Your task to perform on an android device: Open Chrome and go to settings Image 0: 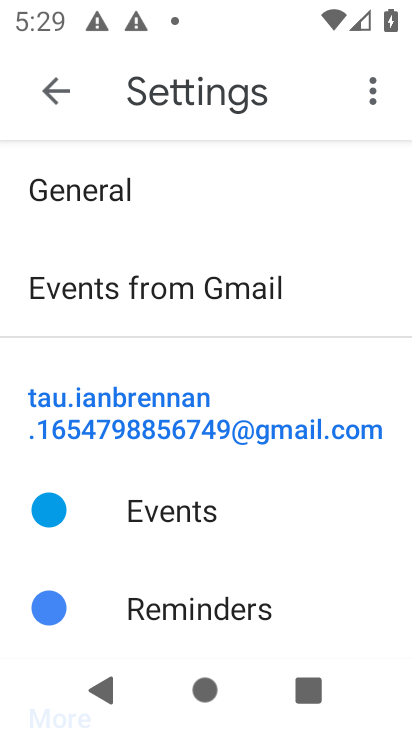
Step 0: press home button
Your task to perform on an android device: Open Chrome and go to settings Image 1: 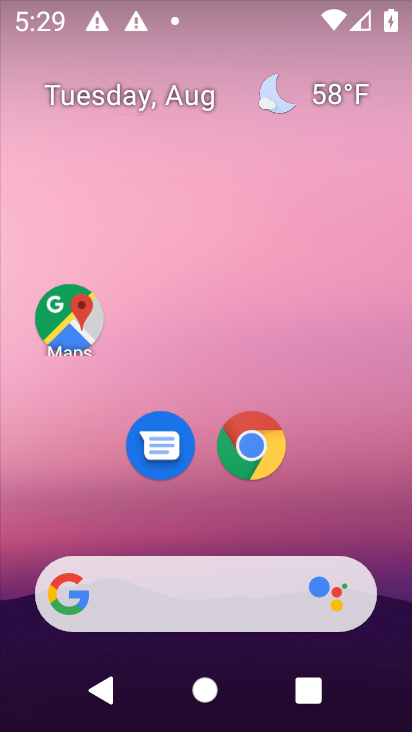
Step 1: click (247, 444)
Your task to perform on an android device: Open Chrome and go to settings Image 2: 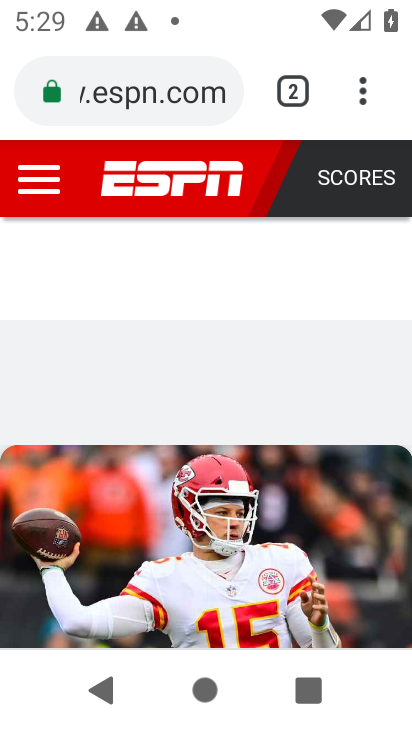
Step 2: click (363, 91)
Your task to perform on an android device: Open Chrome and go to settings Image 3: 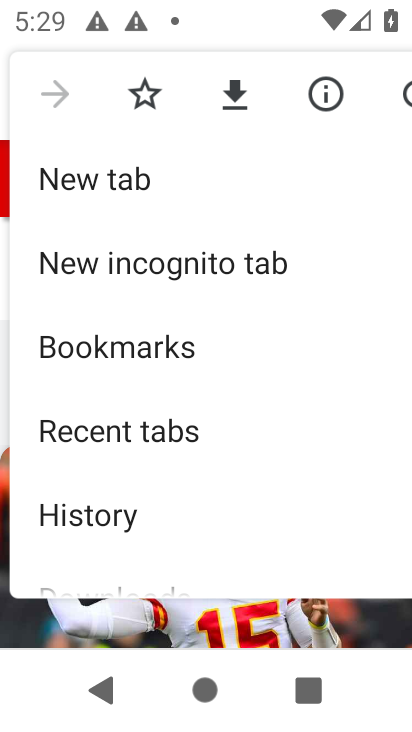
Step 3: drag from (122, 459) to (116, 207)
Your task to perform on an android device: Open Chrome and go to settings Image 4: 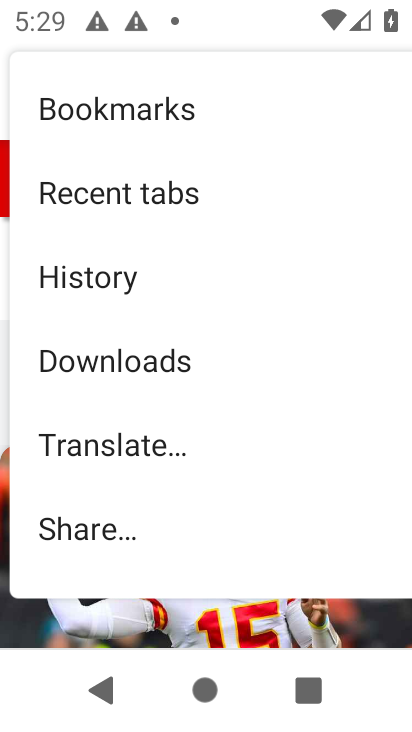
Step 4: drag from (126, 547) to (123, 333)
Your task to perform on an android device: Open Chrome and go to settings Image 5: 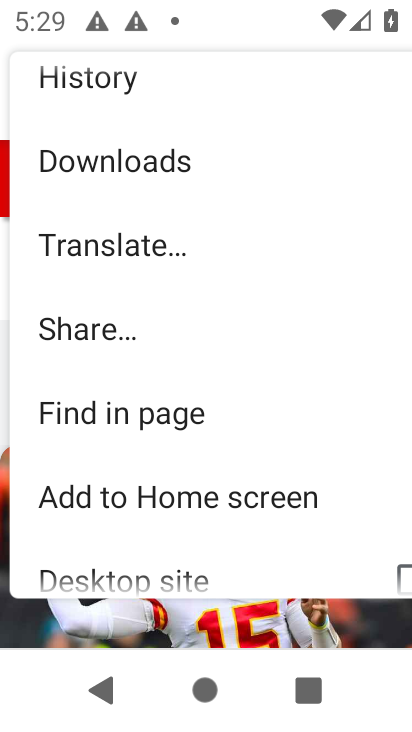
Step 5: drag from (145, 555) to (145, 283)
Your task to perform on an android device: Open Chrome and go to settings Image 6: 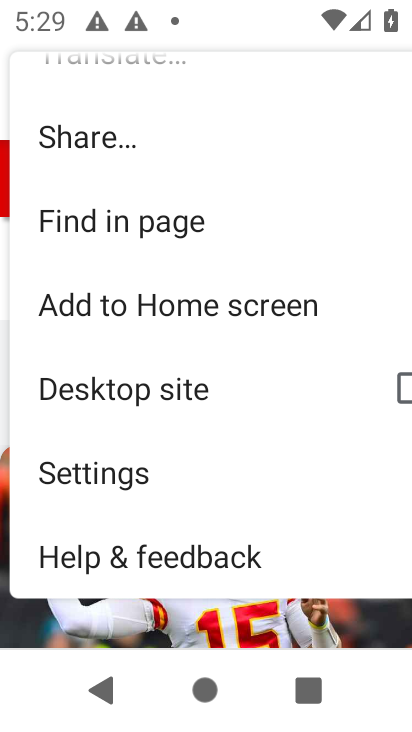
Step 6: click (83, 477)
Your task to perform on an android device: Open Chrome and go to settings Image 7: 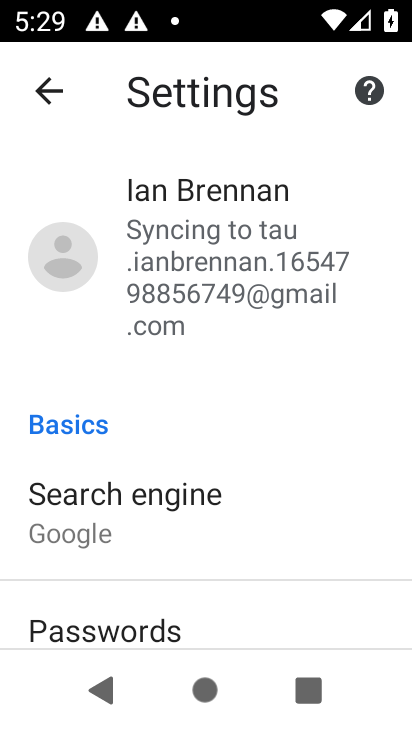
Step 7: task complete